Your task to perform on an android device: turn pop-ups on in chrome Image 0: 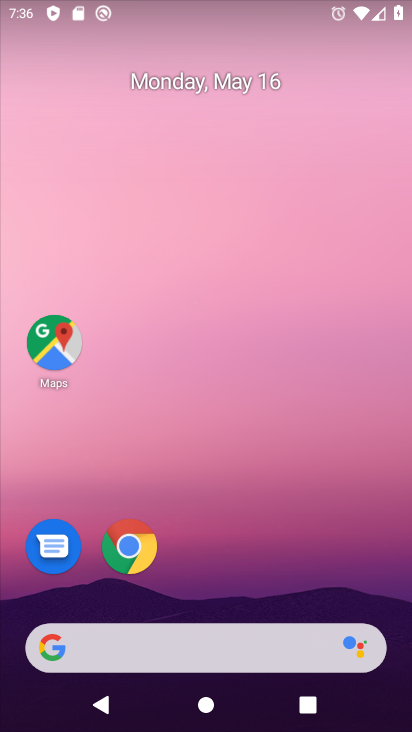
Step 0: click (119, 546)
Your task to perform on an android device: turn pop-ups on in chrome Image 1: 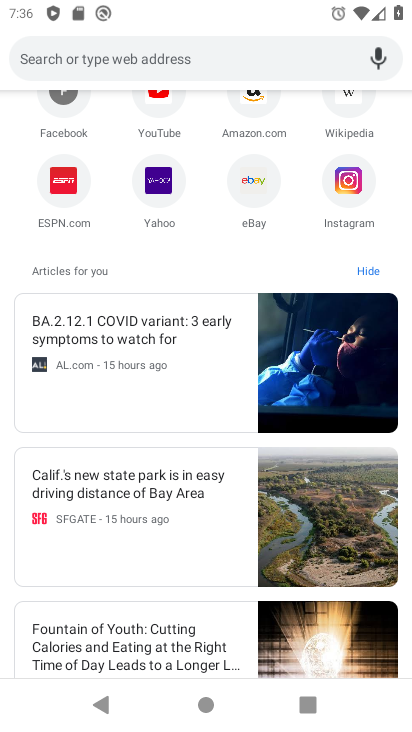
Step 1: drag from (315, 176) to (299, 626)
Your task to perform on an android device: turn pop-ups on in chrome Image 2: 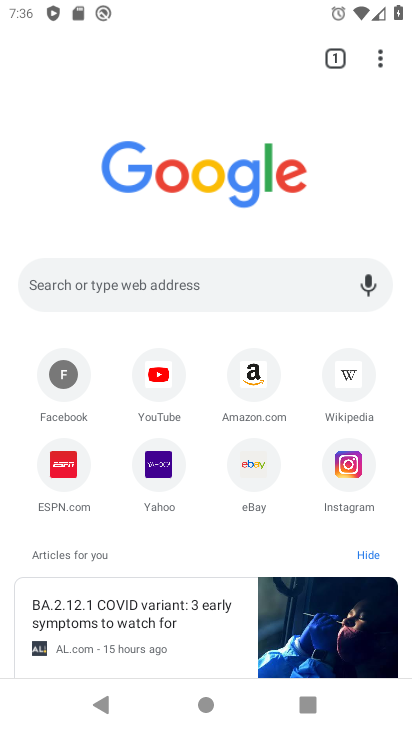
Step 2: click (385, 65)
Your task to perform on an android device: turn pop-ups on in chrome Image 3: 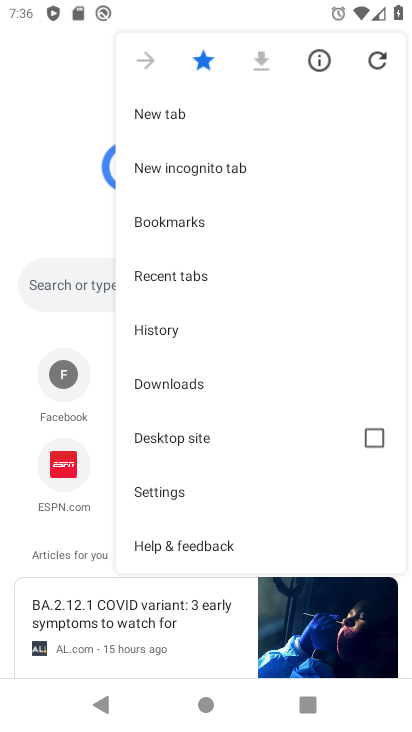
Step 3: click (198, 496)
Your task to perform on an android device: turn pop-ups on in chrome Image 4: 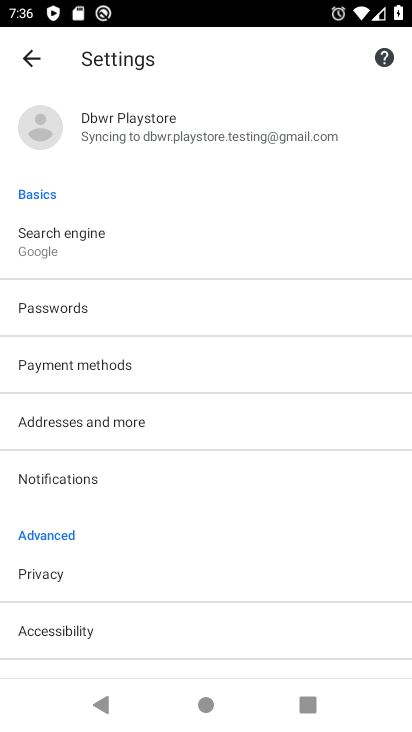
Step 4: drag from (180, 537) to (247, 299)
Your task to perform on an android device: turn pop-ups on in chrome Image 5: 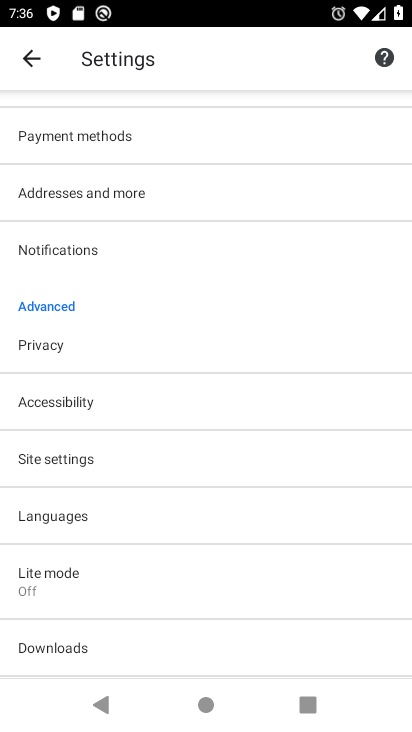
Step 5: drag from (136, 574) to (170, 455)
Your task to perform on an android device: turn pop-ups on in chrome Image 6: 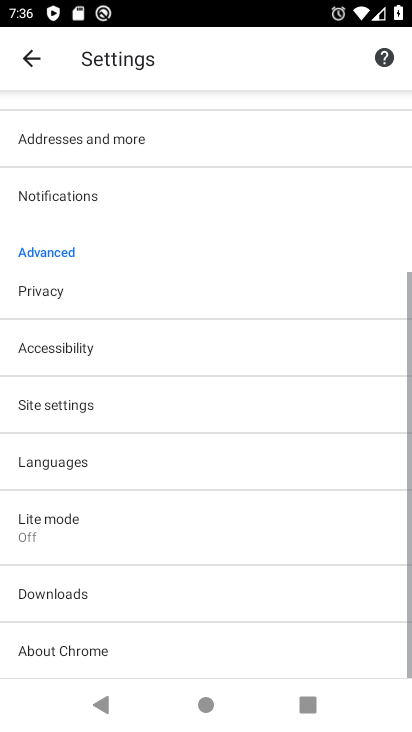
Step 6: click (175, 387)
Your task to perform on an android device: turn pop-ups on in chrome Image 7: 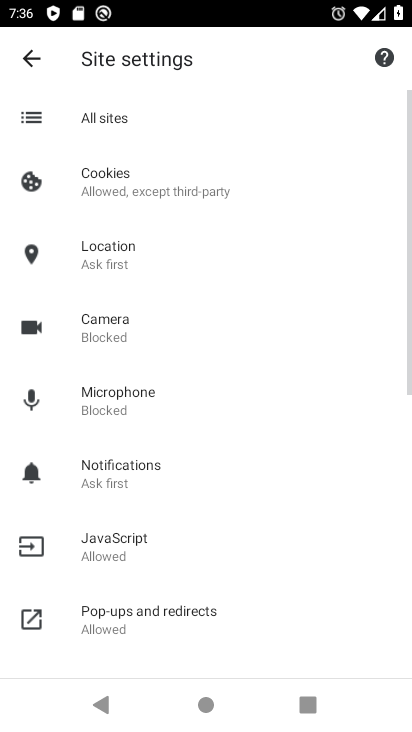
Step 7: click (154, 612)
Your task to perform on an android device: turn pop-ups on in chrome Image 8: 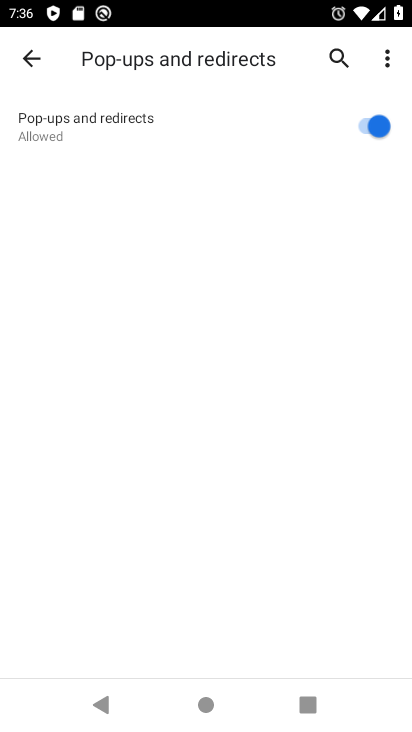
Step 8: task complete